Your task to perform on an android device: Go to display settings Image 0: 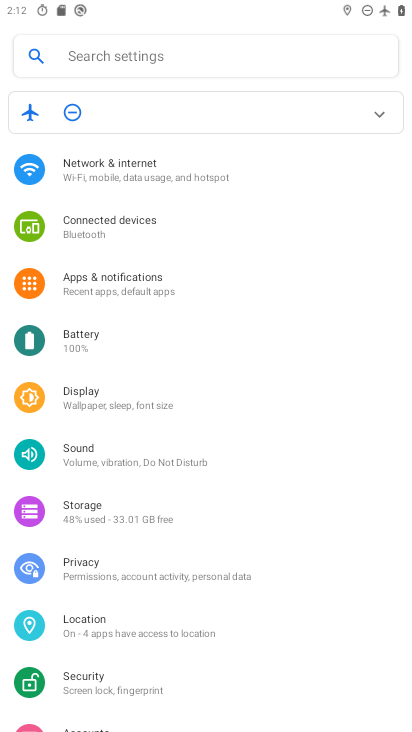
Step 0: click (61, 395)
Your task to perform on an android device: Go to display settings Image 1: 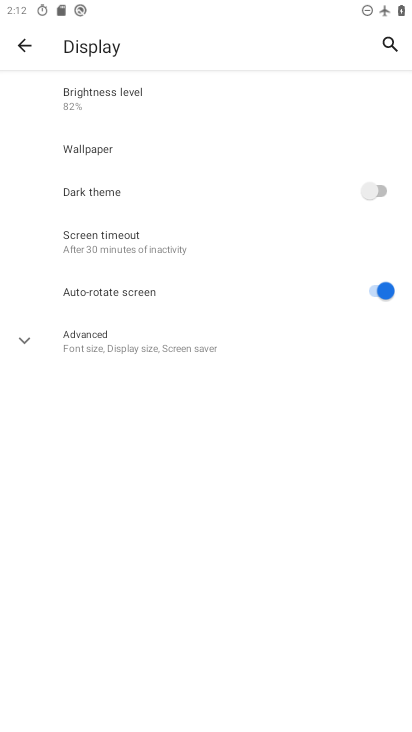
Step 1: task complete